Your task to perform on an android device: open chrome privacy settings Image 0: 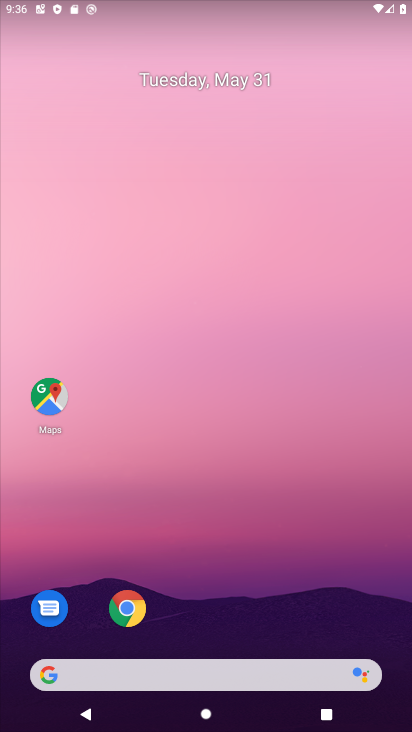
Step 0: click (134, 615)
Your task to perform on an android device: open chrome privacy settings Image 1: 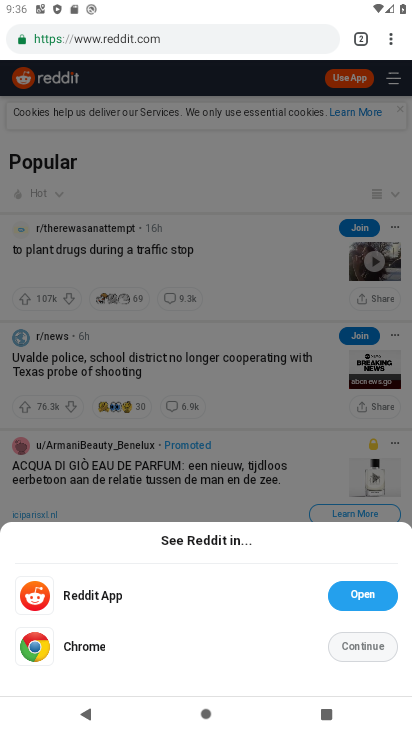
Step 1: click (359, 601)
Your task to perform on an android device: open chrome privacy settings Image 2: 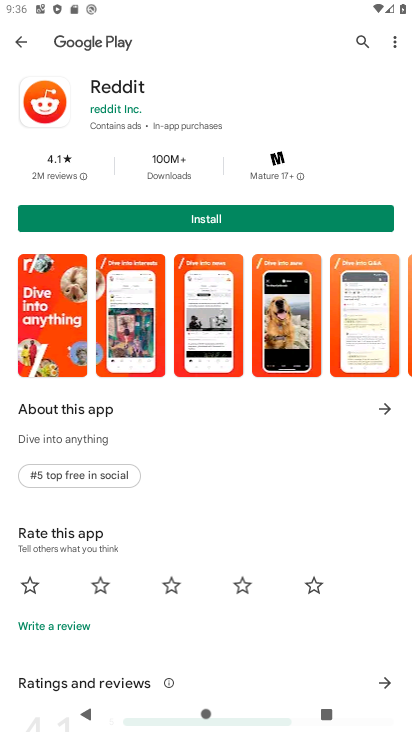
Step 2: task complete